Your task to perform on an android device: turn on wifi Image 0: 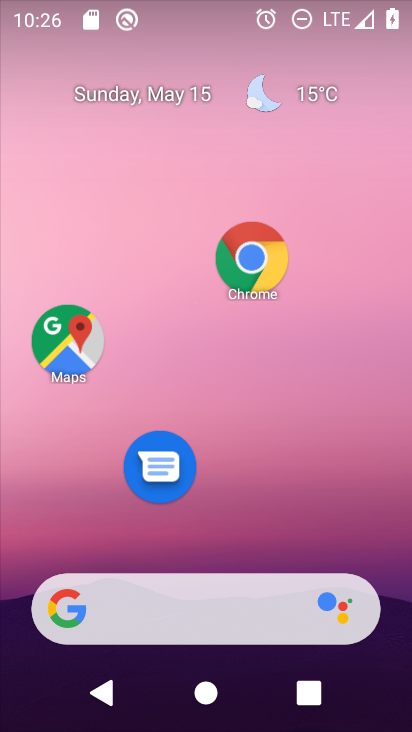
Step 0: drag from (222, 21) to (266, 583)
Your task to perform on an android device: turn on wifi Image 1: 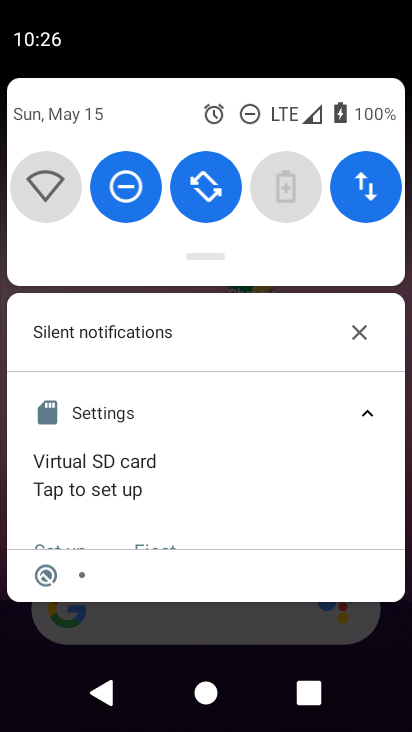
Step 1: click (40, 192)
Your task to perform on an android device: turn on wifi Image 2: 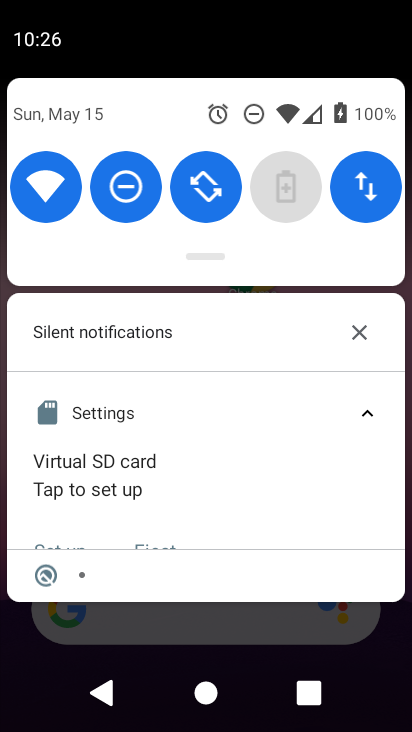
Step 2: task complete